Your task to perform on an android device: turn off smart reply in the gmail app Image 0: 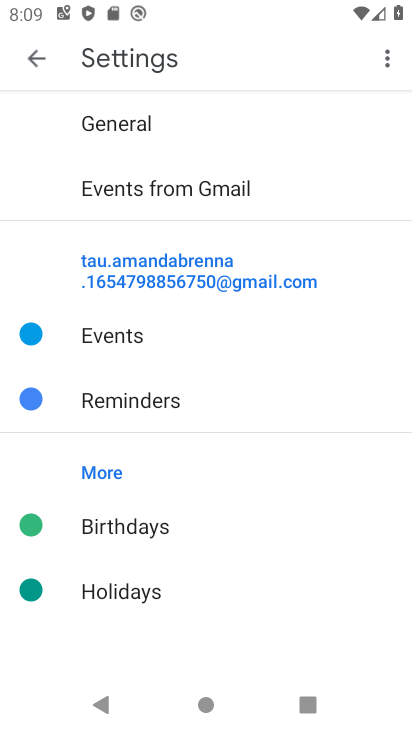
Step 0: press home button
Your task to perform on an android device: turn off smart reply in the gmail app Image 1: 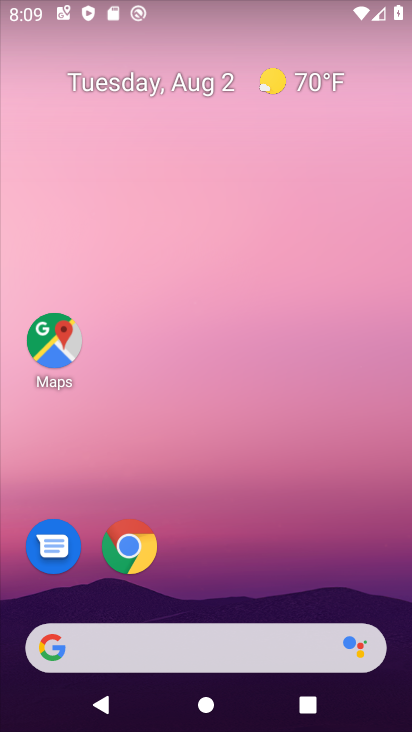
Step 1: drag from (224, 612) to (259, 9)
Your task to perform on an android device: turn off smart reply in the gmail app Image 2: 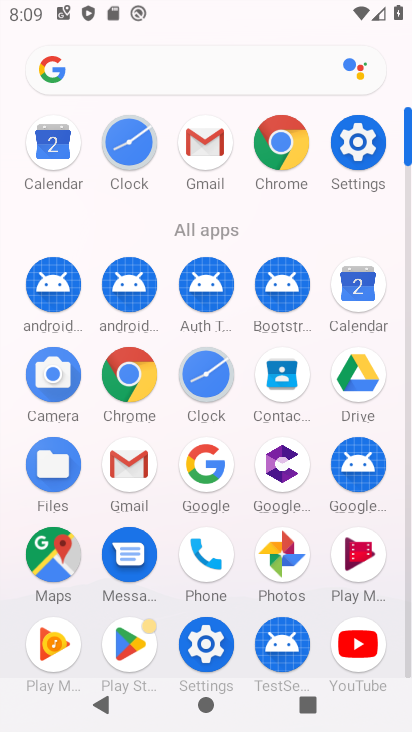
Step 2: click (133, 479)
Your task to perform on an android device: turn off smart reply in the gmail app Image 3: 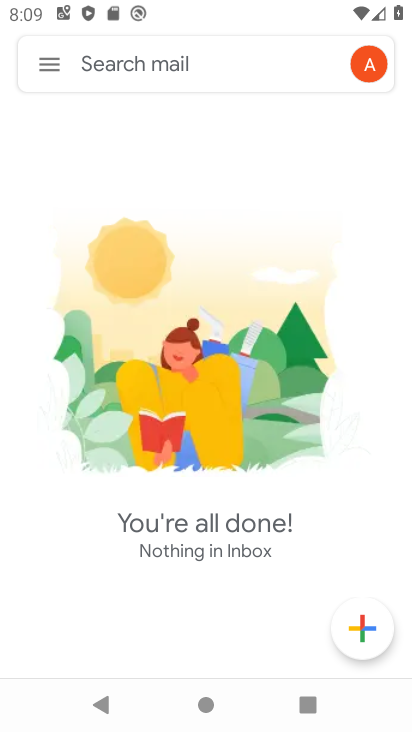
Step 3: click (45, 58)
Your task to perform on an android device: turn off smart reply in the gmail app Image 4: 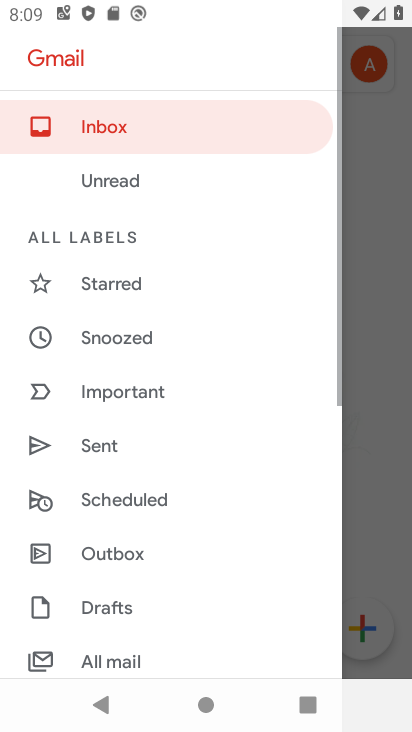
Step 4: drag from (139, 577) to (164, 204)
Your task to perform on an android device: turn off smart reply in the gmail app Image 5: 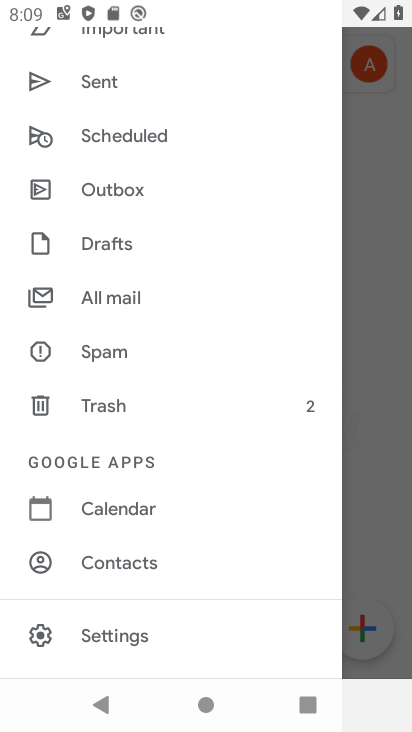
Step 5: drag from (147, 588) to (154, 334)
Your task to perform on an android device: turn off smart reply in the gmail app Image 6: 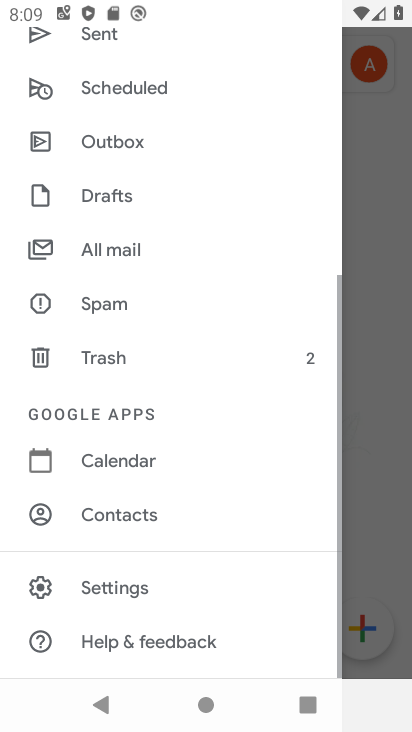
Step 6: click (121, 593)
Your task to perform on an android device: turn off smart reply in the gmail app Image 7: 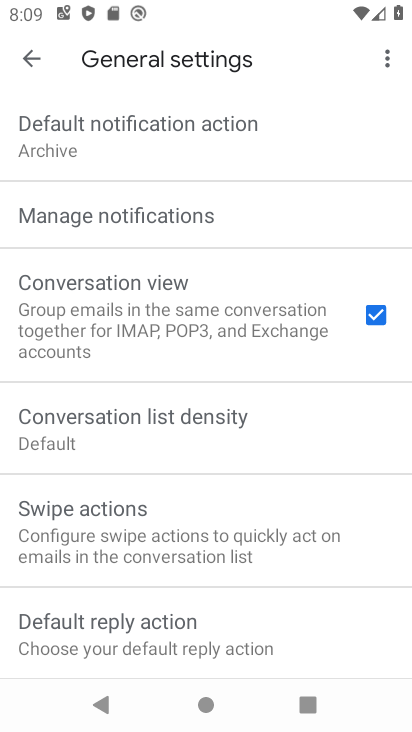
Step 7: click (31, 53)
Your task to perform on an android device: turn off smart reply in the gmail app Image 8: 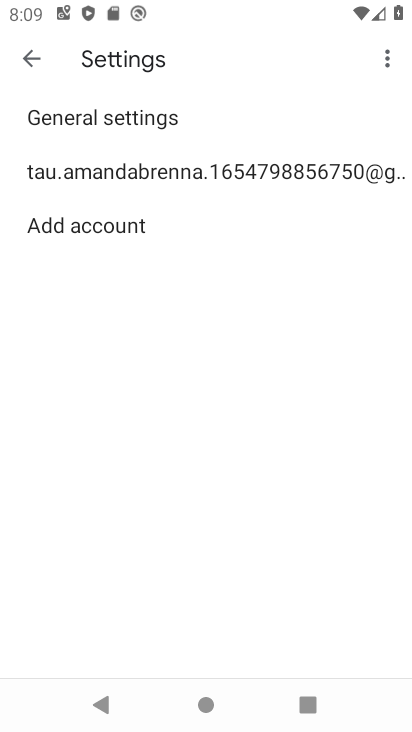
Step 8: click (138, 168)
Your task to perform on an android device: turn off smart reply in the gmail app Image 9: 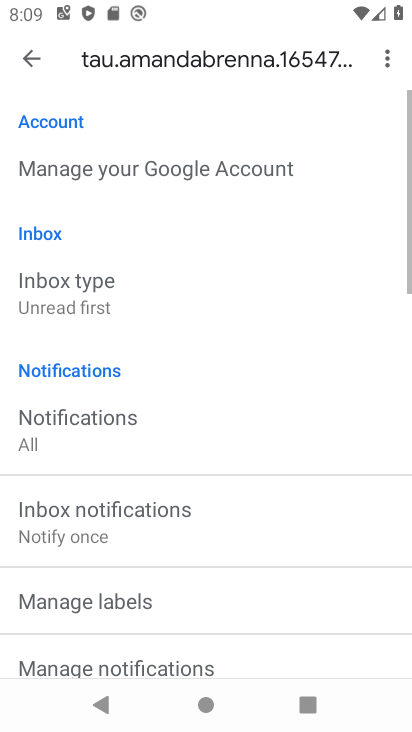
Step 9: drag from (200, 514) to (191, 313)
Your task to perform on an android device: turn off smart reply in the gmail app Image 10: 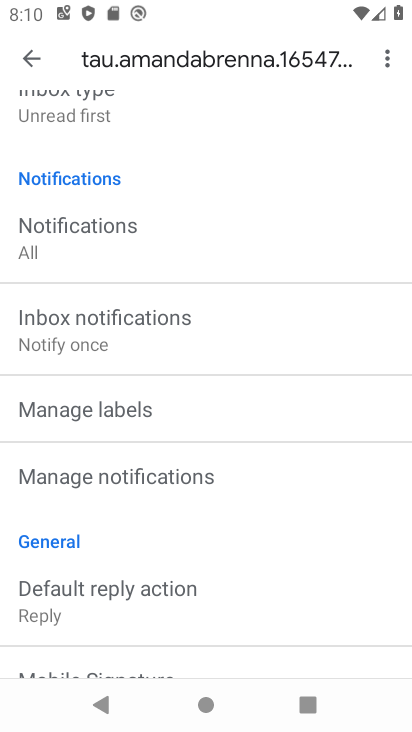
Step 10: drag from (179, 553) to (217, 183)
Your task to perform on an android device: turn off smart reply in the gmail app Image 11: 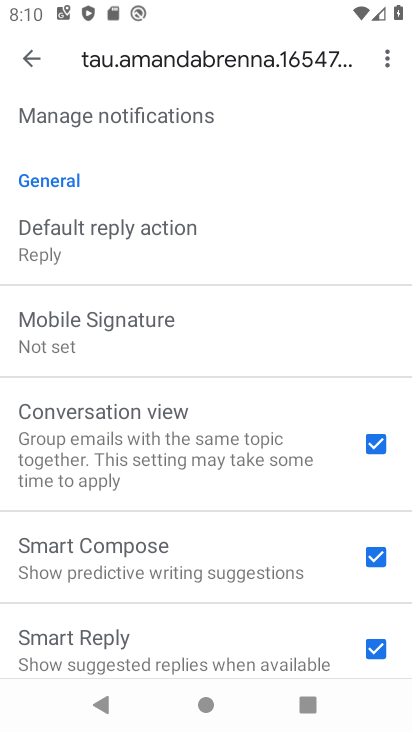
Step 11: drag from (191, 536) to (209, 350)
Your task to perform on an android device: turn off smart reply in the gmail app Image 12: 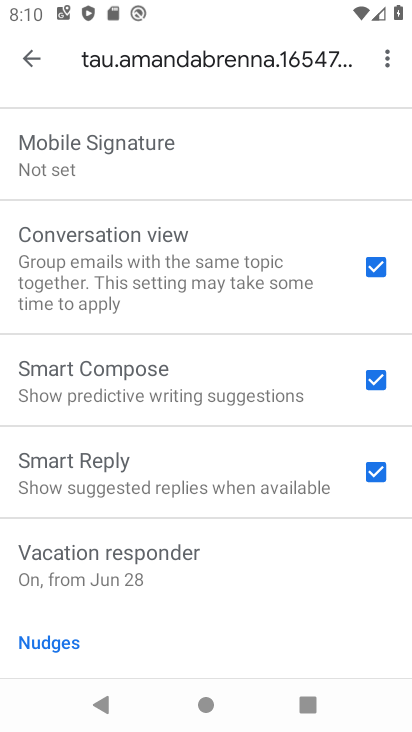
Step 12: click (361, 474)
Your task to perform on an android device: turn off smart reply in the gmail app Image 13: 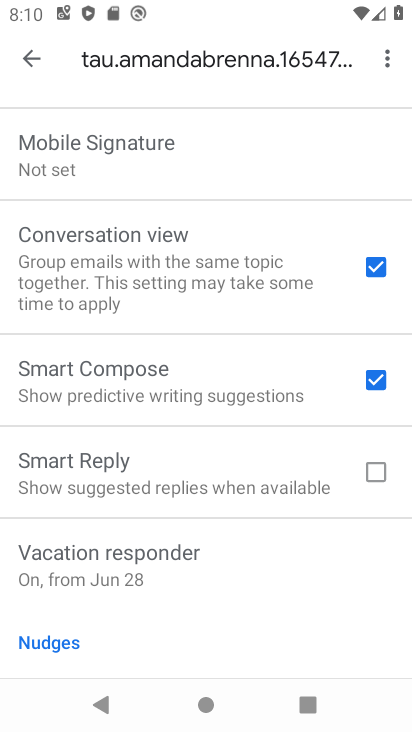
Step 13: task complete